Your task to perform on an android device: toggle translation in the chrome app Image 0: 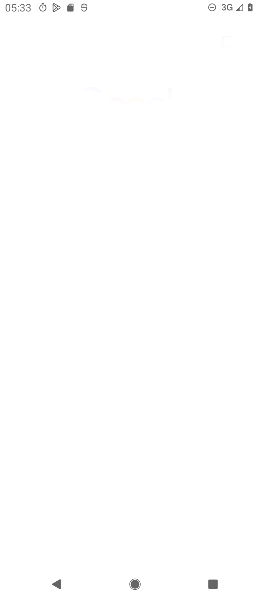
Step 0: press home button
Your task to perform on an android device: toggle translation in the chrome app Image 1: 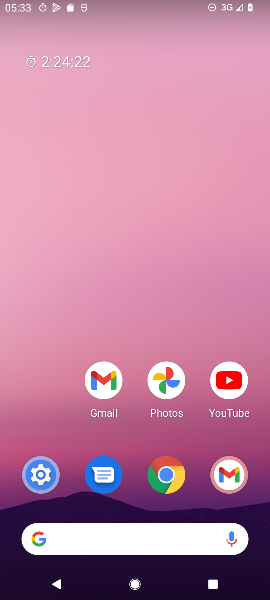
Step 1: drag from (66, 439) to (61, 216)
Your task to perform on an android device: toggle translation in the chrome app Image 2: 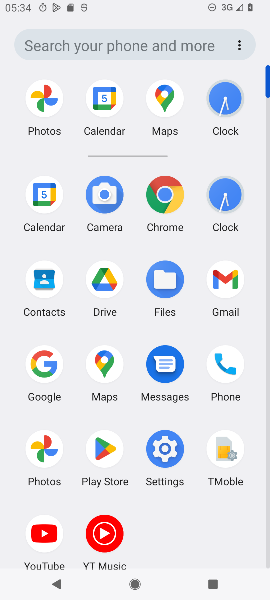
Step 2: click (172, 199)
Your task to perform on an android device: toggle translation in the chrome app Image 3: 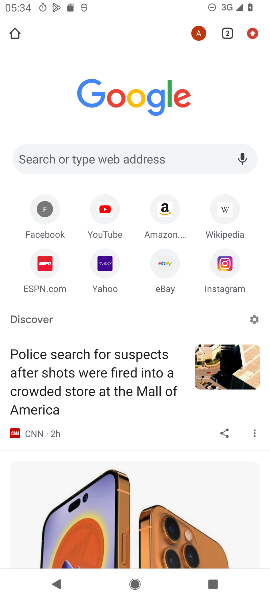
Step 3: click (252, 32)
Your task to perform on an android device: toggle translation in the chrome app Image 4: 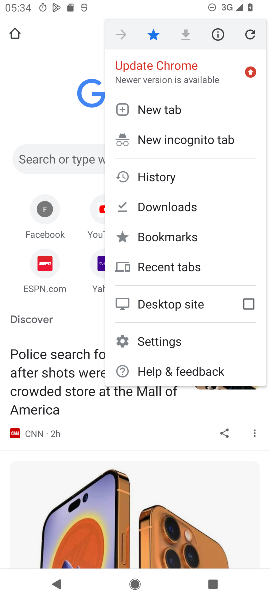
Step 4: click (211, 337)
Your task to perform on an android device: toggle translation in the chrome app Image 5: 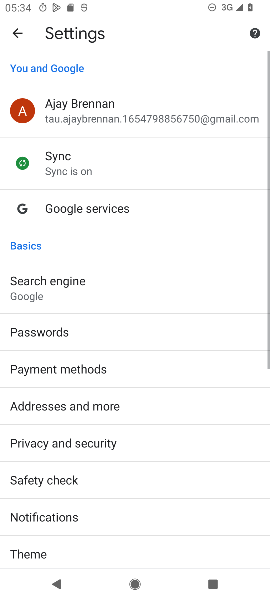
Step 5: drag from (210, 367) to (210, 289)
Your task to perform on an android device: toggle translation in the chrome app Image 6: 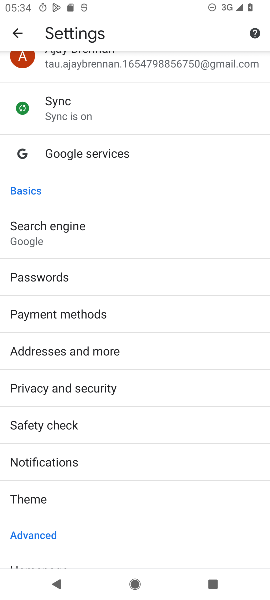
Step 6: drag from (204, 359) to (203, 310)
Your task to perform on an android device: toggle translation in the chrome app Image 7: 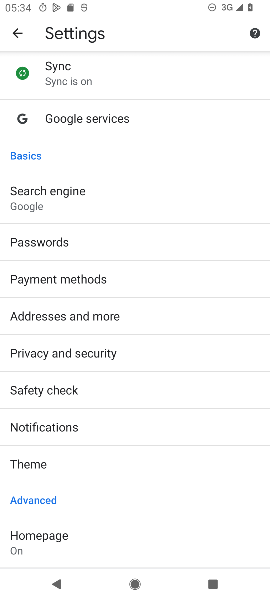
Step 7: drag from (208, 399) to (207, 337)
Your task to perform on an android device: toggle translation in the chrome app Image 8: 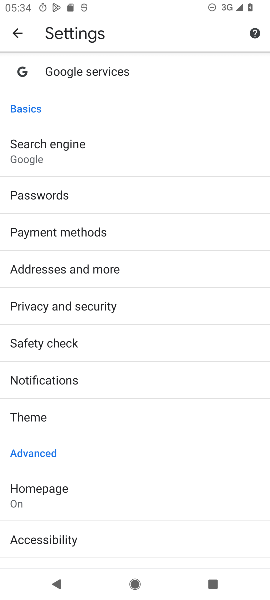
Step 8: drag from (200, 421) to (204, 331)
Your task to perform on an android device: toggle translation in the chrome app Image 9: 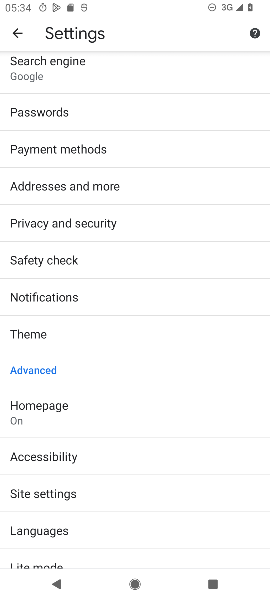
Step 9: drag from (191, 425) to (205, 358)
Your task to perform on an android device: toggle translation in the chrome app Image 10: 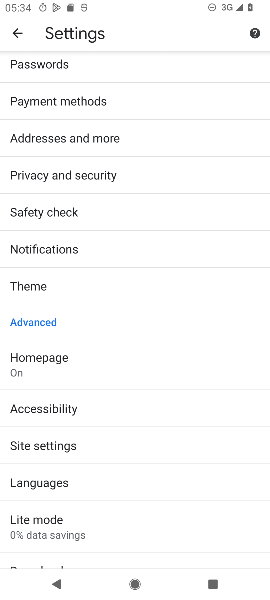
Step 10: drag from (187, 467) to (193, 383)
Your task to perform on an android device: toggle translation in the chrome app Image 11: 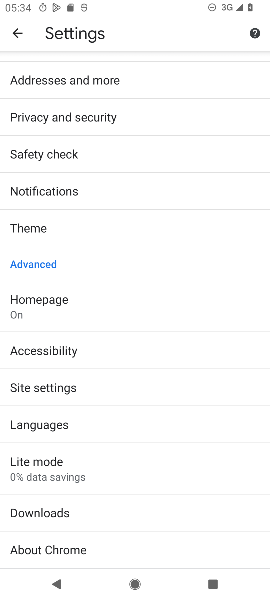
Step 11: click (177, 428)
Your task to perform on an android device: toggle translation in the chrome app Image 12: 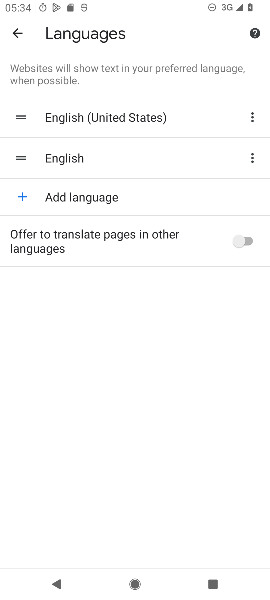
Step 12: click (238, 248)
Your task to perform on an android device: toggle translation in the chrome app Image 13: 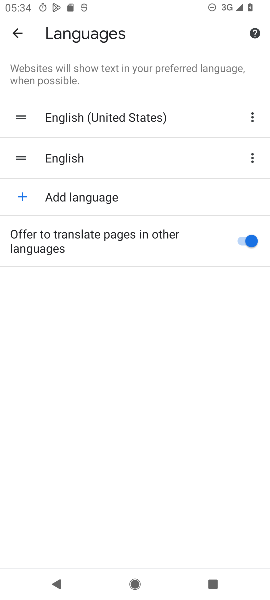
Step 13: task complete